Your task to perform on an android device: Is it going to rain tomorrow? Image 0: 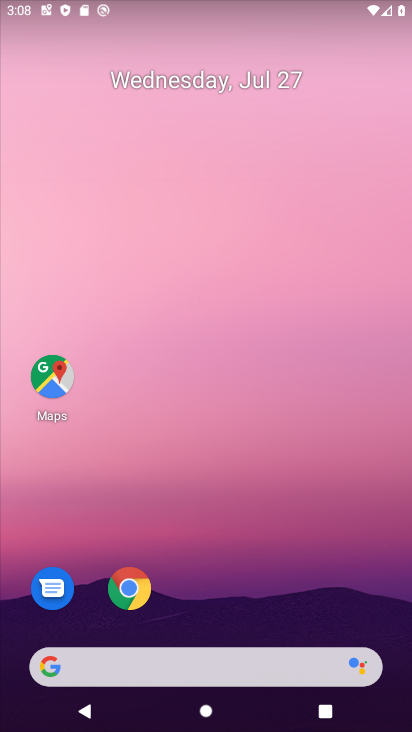
Step 0: drag from (367, 604) to (268, 79)
Your task to perform on an android device: Is it going to rain tomorrow? Image 1: 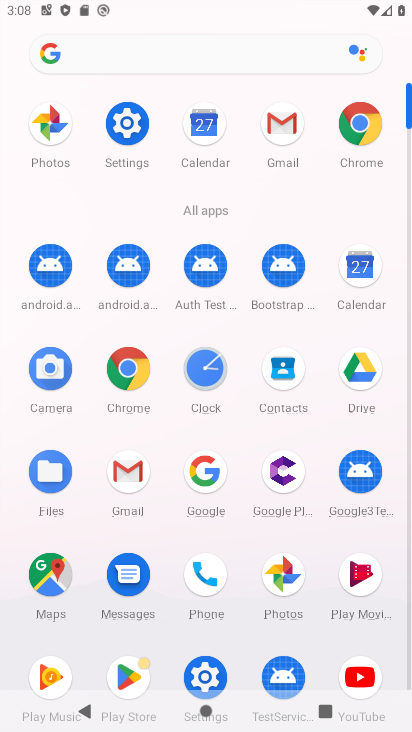
Step 1: click (367, 120)
Your task to perform on an android device: Is it going to rain tomorrow? Image 2: 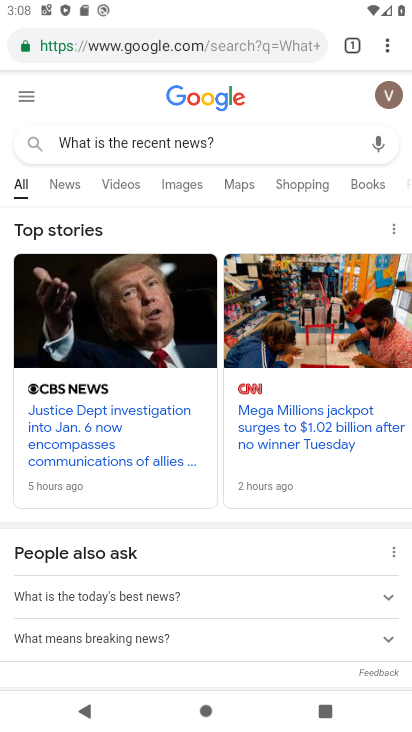
Step 2: click (290, 49)
Your task to perform on an android device: Is it going to rain tomorrow? Image 3: 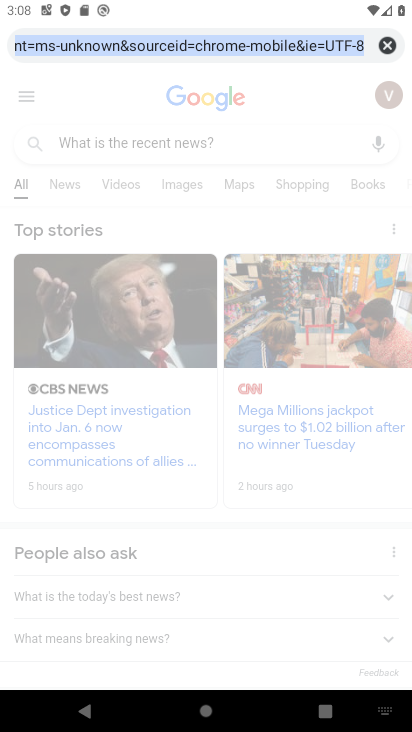
Step 3: type "Is it going to rain tomorrow?"
Your task to perform on an android device: Is it going to rain tomorrow? Image 4: 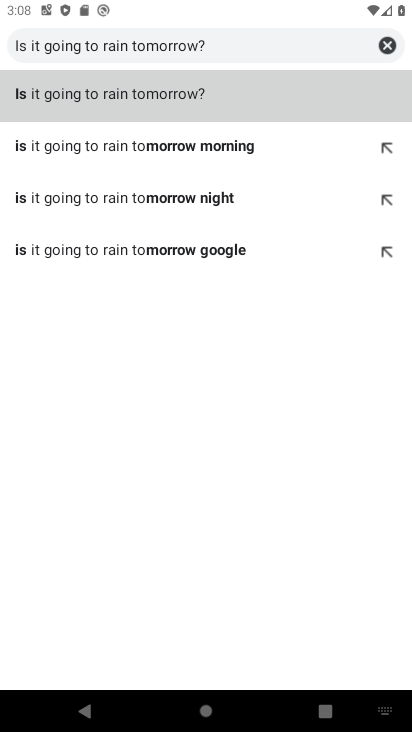
Step 4: click (209, 99)
Your task to perform on an android device: Is it going to rain tomorrow? Image 5: 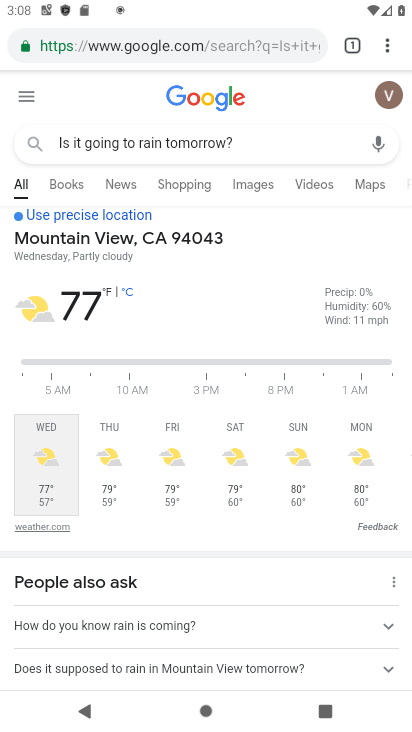
Step 5: task complete